Your task to perform on an android device: change the clock display to analog Image 0: 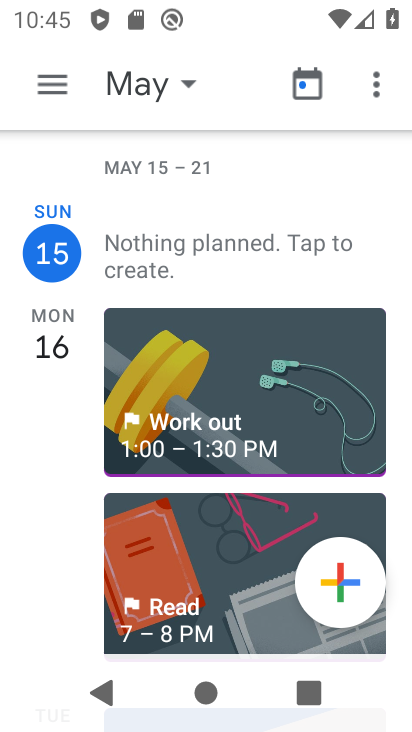
Step 0: press home button
Your task to perform on an android device: change the clock display to analog Image 1: 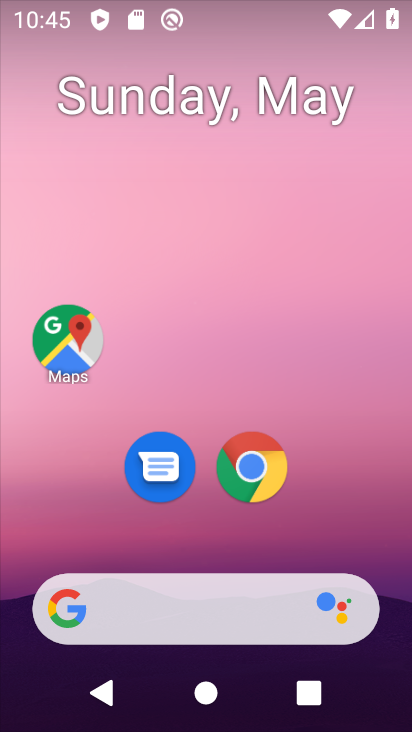
Step 1: drag from (348, 538) to (355, 0)
Your task to perform on an android device: change the clock display to analog Image 2: 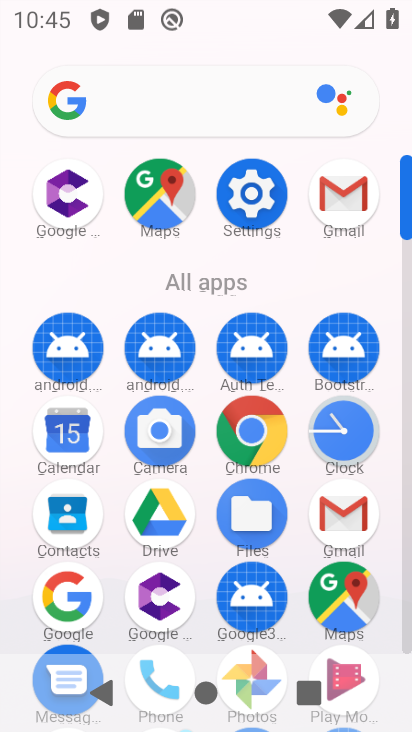
Step 2: click (339, 439)
Your task to perform on an android device: change the clock display to analog Image 3: 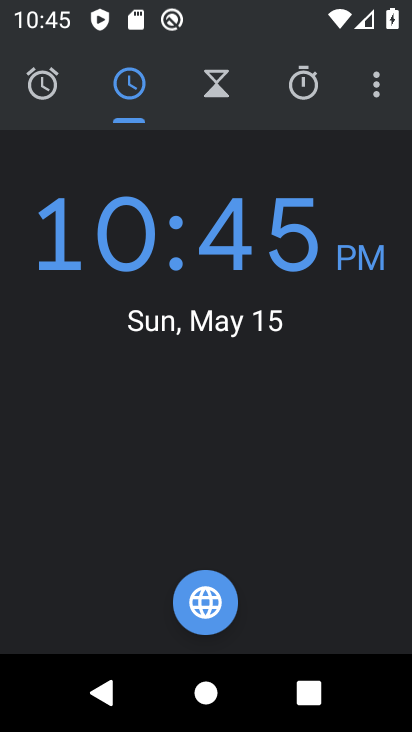
Step 3: click (376, 85)
Your task to perform on an android device: change the clock display to analog Image 4: 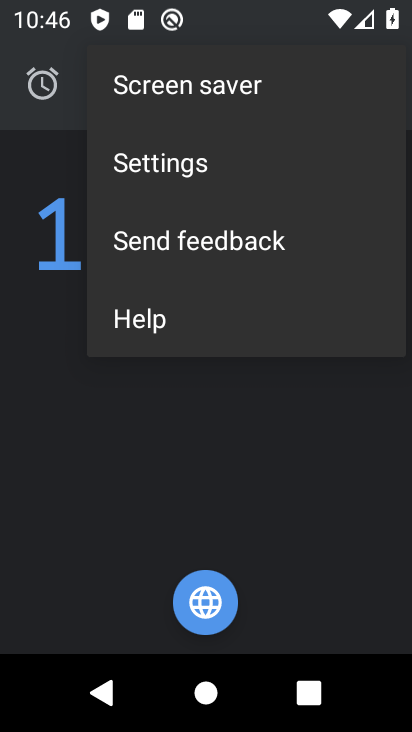
Step 4: click (181, 168)
Your task to perform on an android device: change the clock display to analog Image 5: 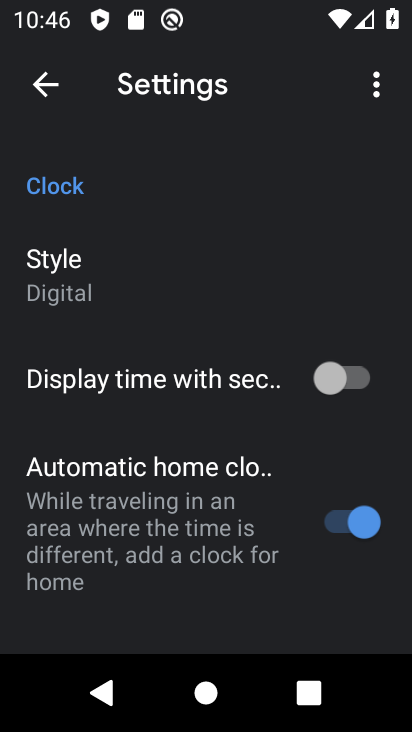
Step 5: click (54, 275)
Your task to perform on an android device: change the clock display to analog Image 6: 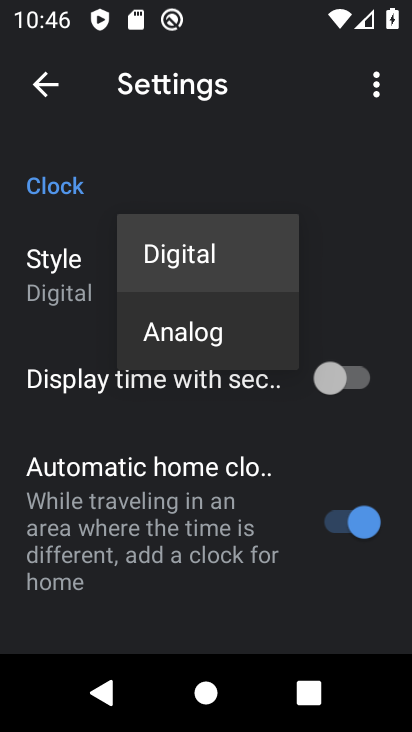
Step 6: click (143, 340)
Your task to perform on an android device: change the clock display to analog Image 7: 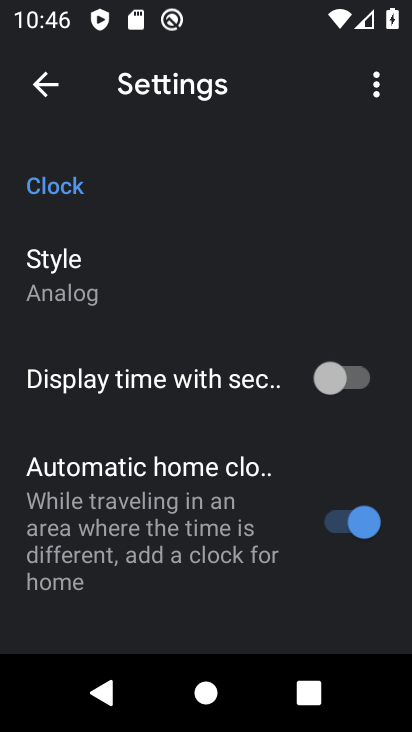
Step 7: task complete